Your task to perform on an android device: Open Google Chrome and open the bookmarks view Image 0: 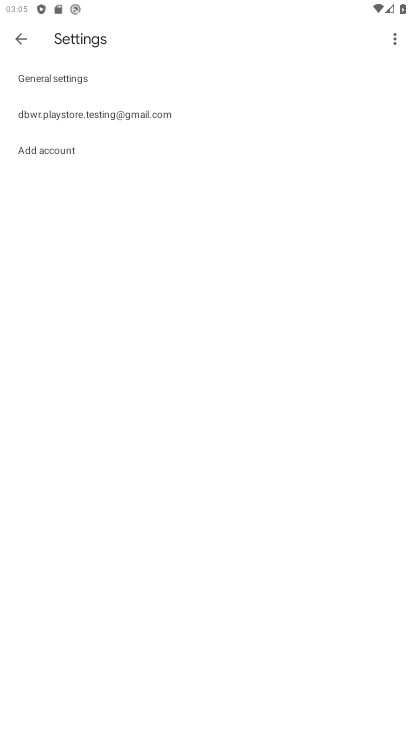
Step 0: press home button
Your task to perform on an android device: Open Google Chrome and open the bookmarks view Image 1: 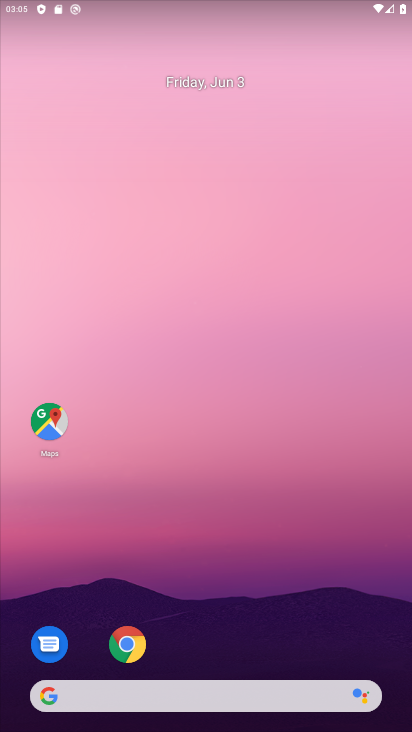
Step 1: click (116, 645)
Your task to perform on an android device: Open Google Chrome and open the bookmarks view Image 2: 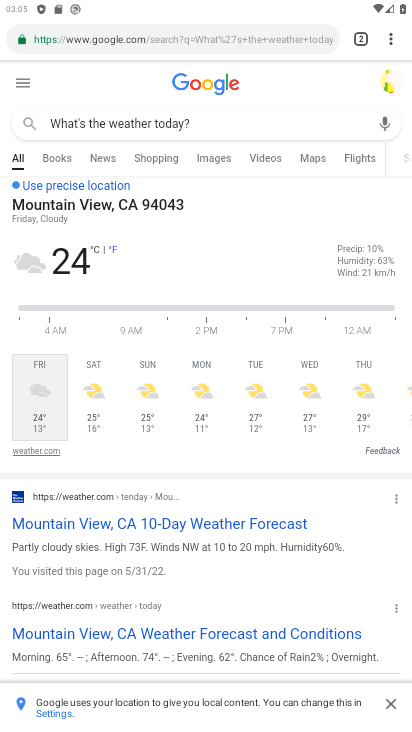
Step 2: task complete